Your task to perform on an android device: What's the weather going to be this weekend? Image 0: 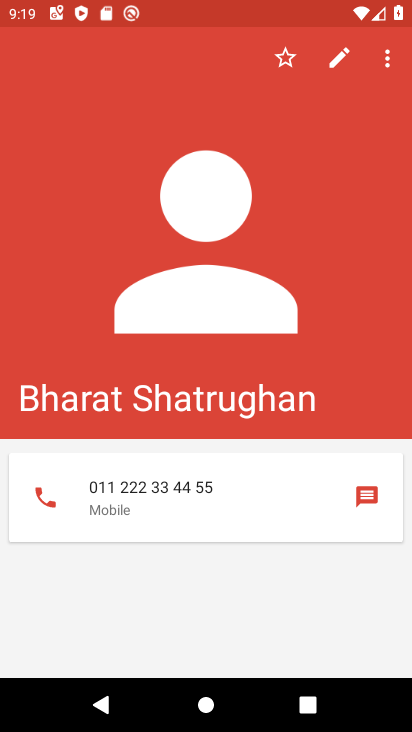
Step 0: press home button
Your task to perform on an android device: What's the weather going to be this weekend? Image 1: 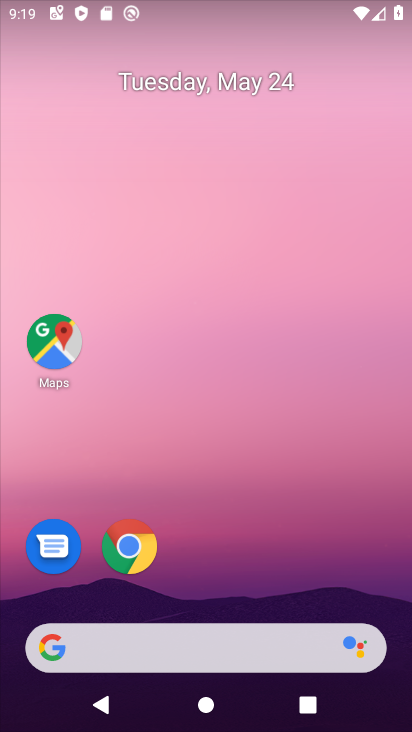
Step 1: click (165, 642)
Your task to perform on an android device: What's the weather going to be this weekend? Image 2: 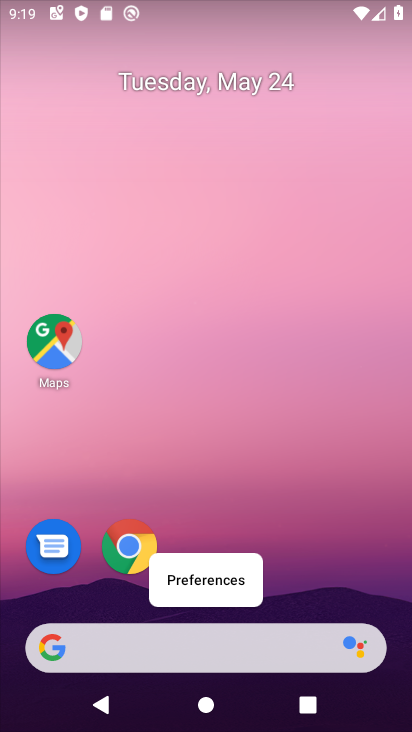
Step 2: click (154, 658)
Your task to perform on an android device: What's the weather going to be this weekend? Image 3: 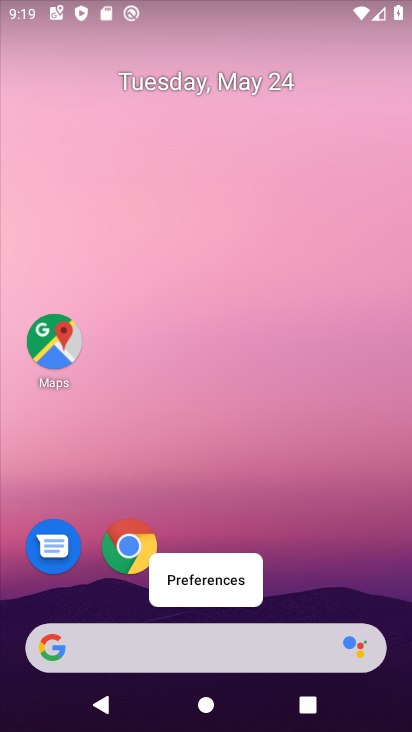
Step 3: click (177, 646)
Your task to perform on an android device: What's the weather going to be this weekend? Image 4: 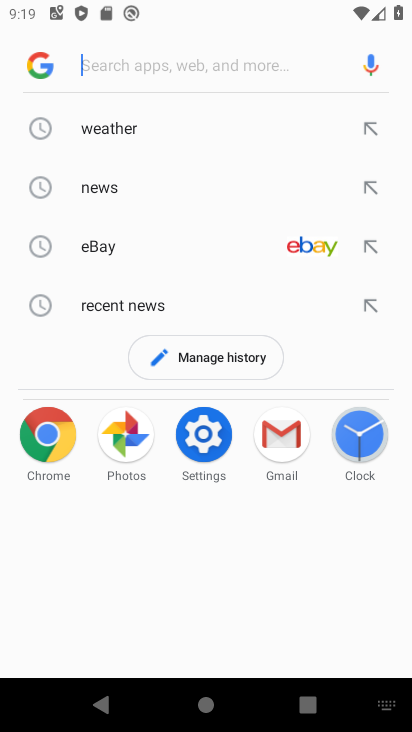
Step 4: click (122, 125)
Your task to perform on an android device: What's the weather going to be this weekend? Image 5: 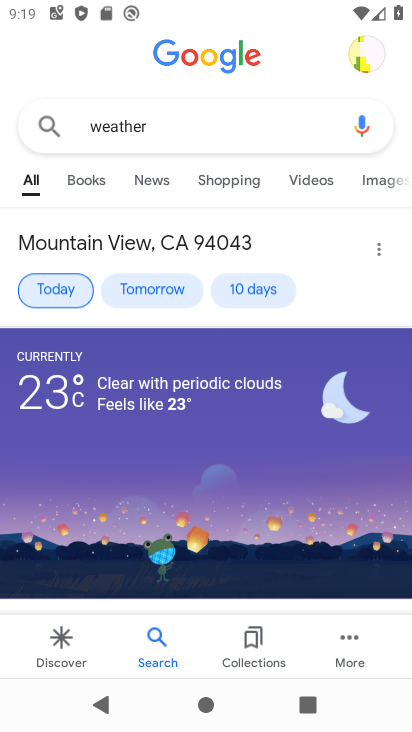
Step 5: click (59, 294)
Your task to perform on an android device: What's the weather going to be this weekend? Image 6: 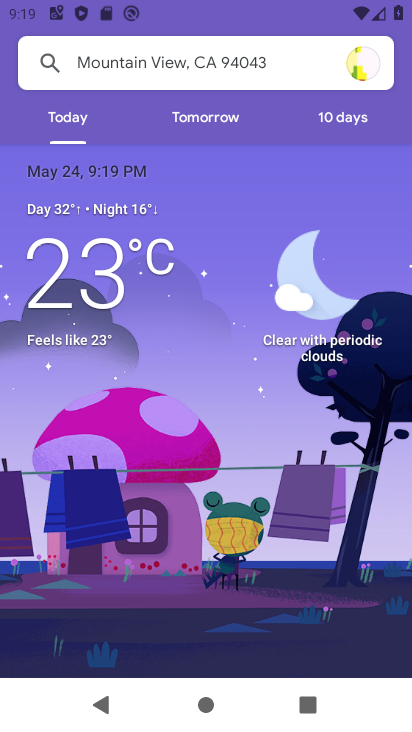
Step 6: click (315, 115)
Your task to perform on an android device: What's the weather going to be this weekend? Image 7: 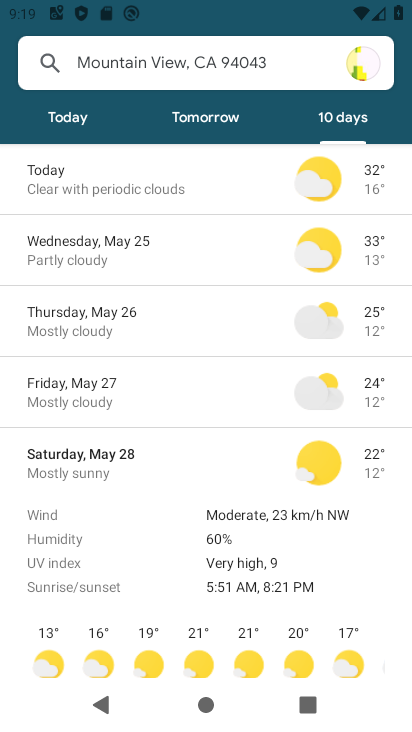
Step 7: task complete